Your task to perform on an android device: Open accessibility settings Image 0: 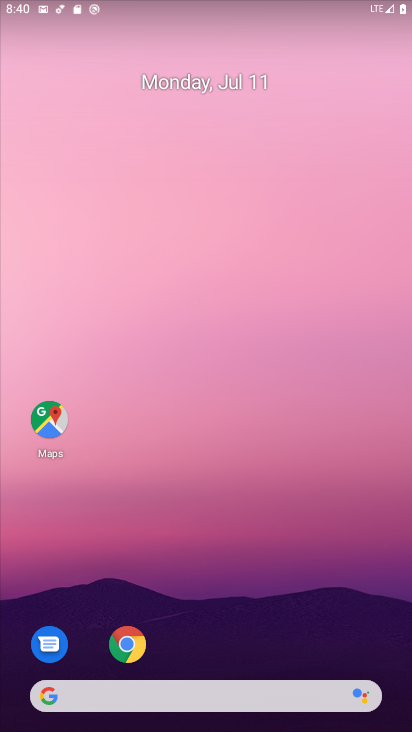
Step 0: drag from (189, 647) to (240, 296)
Your task to perform on an android device: Open accessibility settings Image 1: 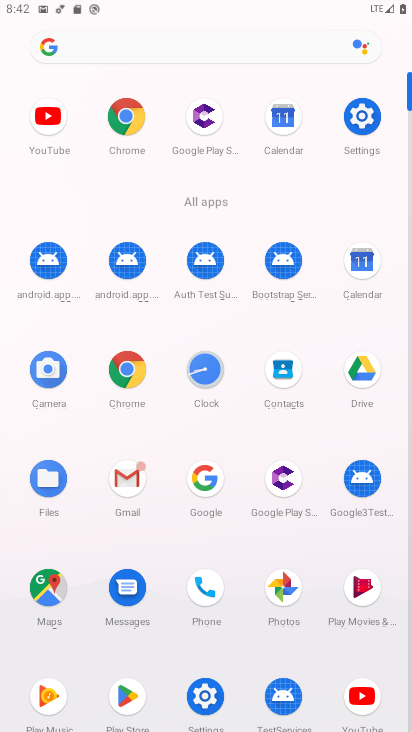
Step 1: click (376, 113)
Your task to perform on an android device: Open accessibility settings Image 2: 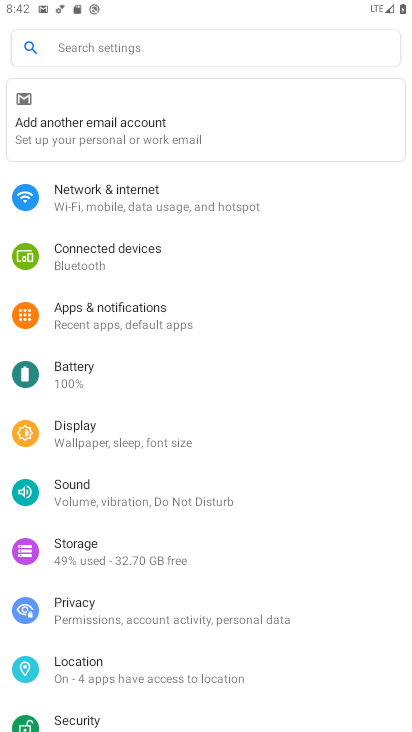
Step 2: drag from (125, 689) to (175, 338)
Your task to perform on an android device: Open accessibility settings Image 3: 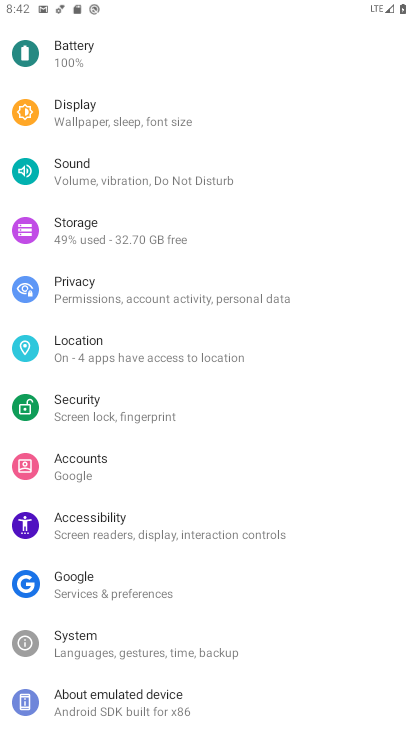
Step 3: click (102, 525)
Your task to perform on an android device: Open accessibility settings Image 4: 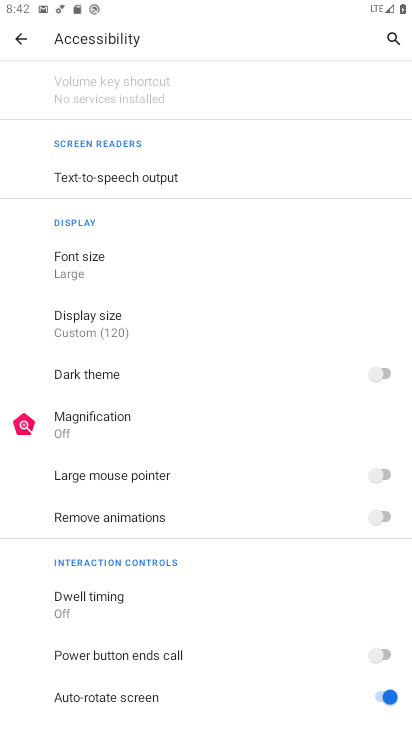
Step 4: task complete